Your task to perform on an android device: snooze an email in the gmail app Image 0: 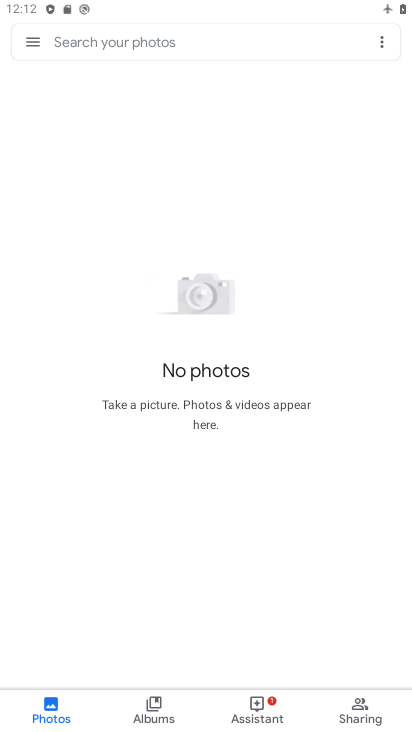
Step 0: press home button
Your task to perform on an android device: snooze an email in the gmail app Image 1: 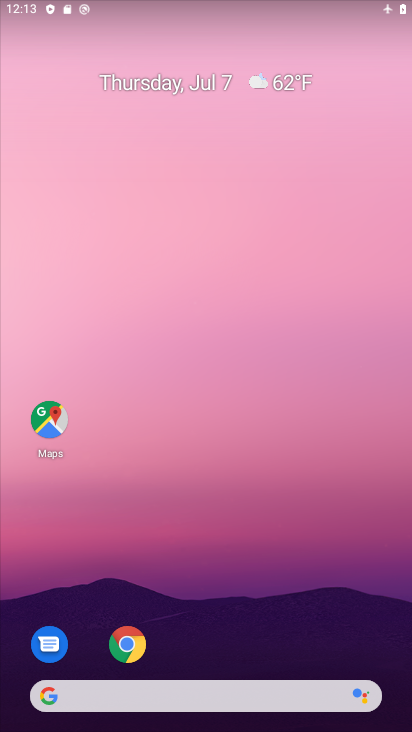
Step 1: drag from (47, 572) to (264, 77)
Your task to perform on an android device: snooze an email in the gmail app Image 2: 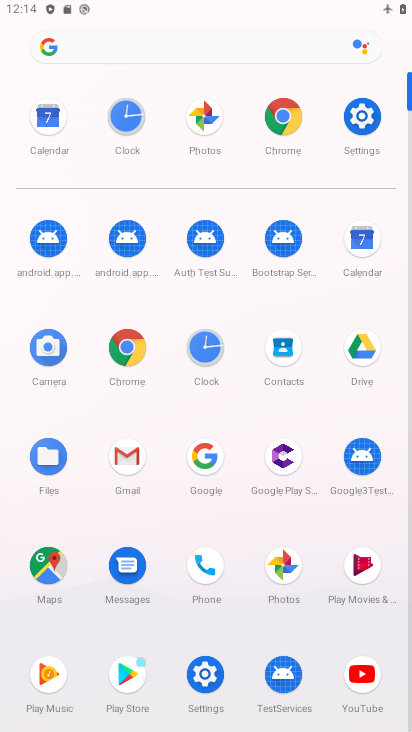
Step 2: click (115, 456)
Your task to perform on an android device: snooze an email in the gmail app Image 3: 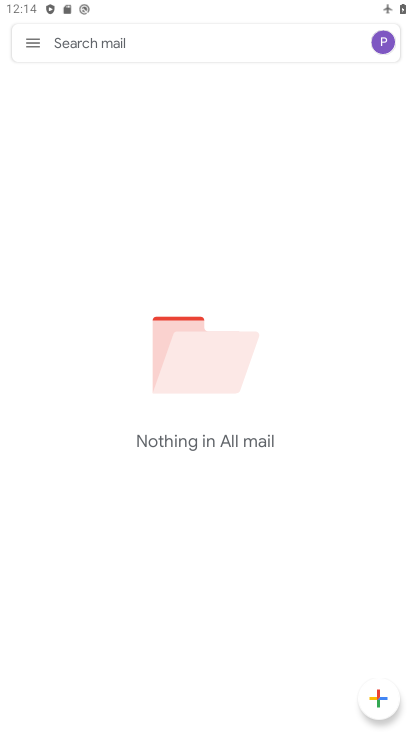
Step 3: task complete